Your task to perform on an android device: open app "YouTube Kids" Image 0: 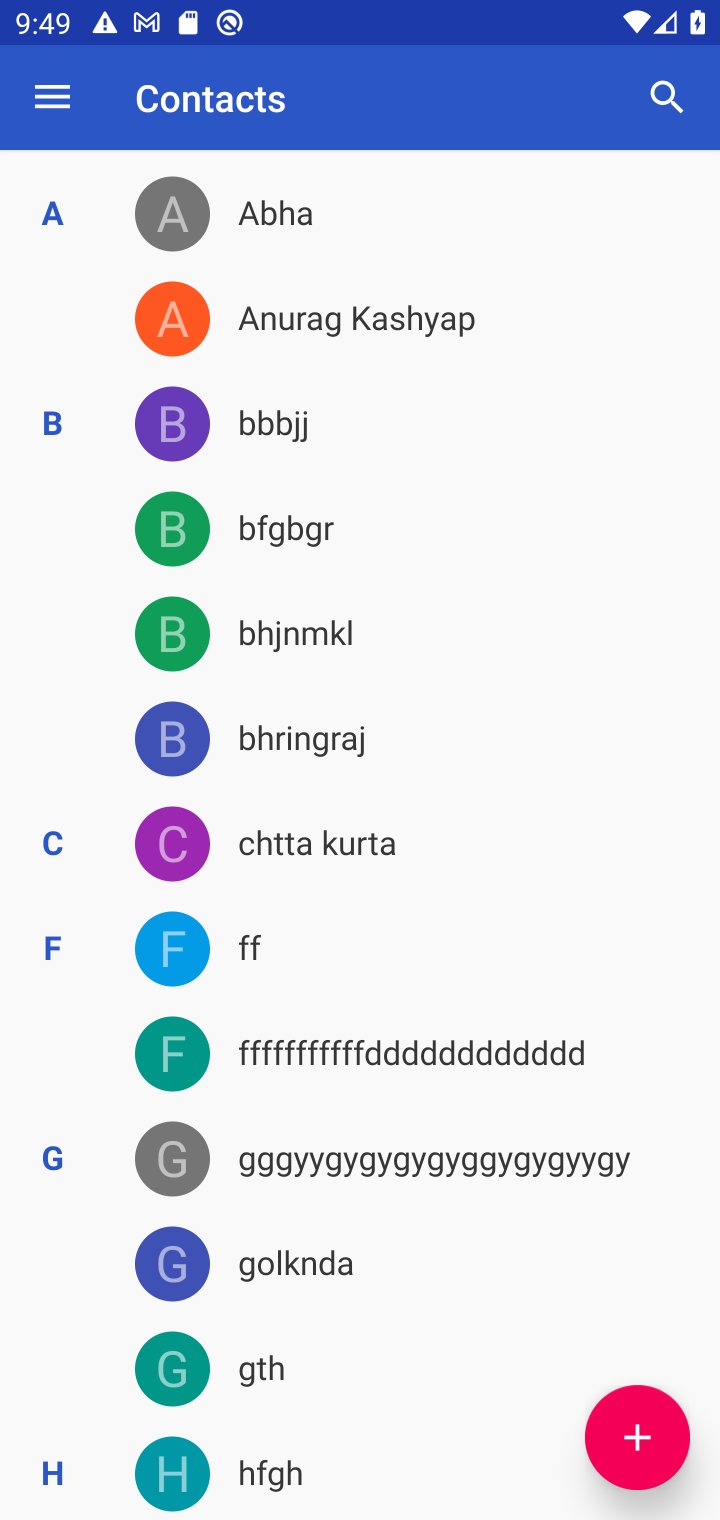
Step 0: press home button
Your task to perform on an android device: open app "YouTube Kids" Image 1: 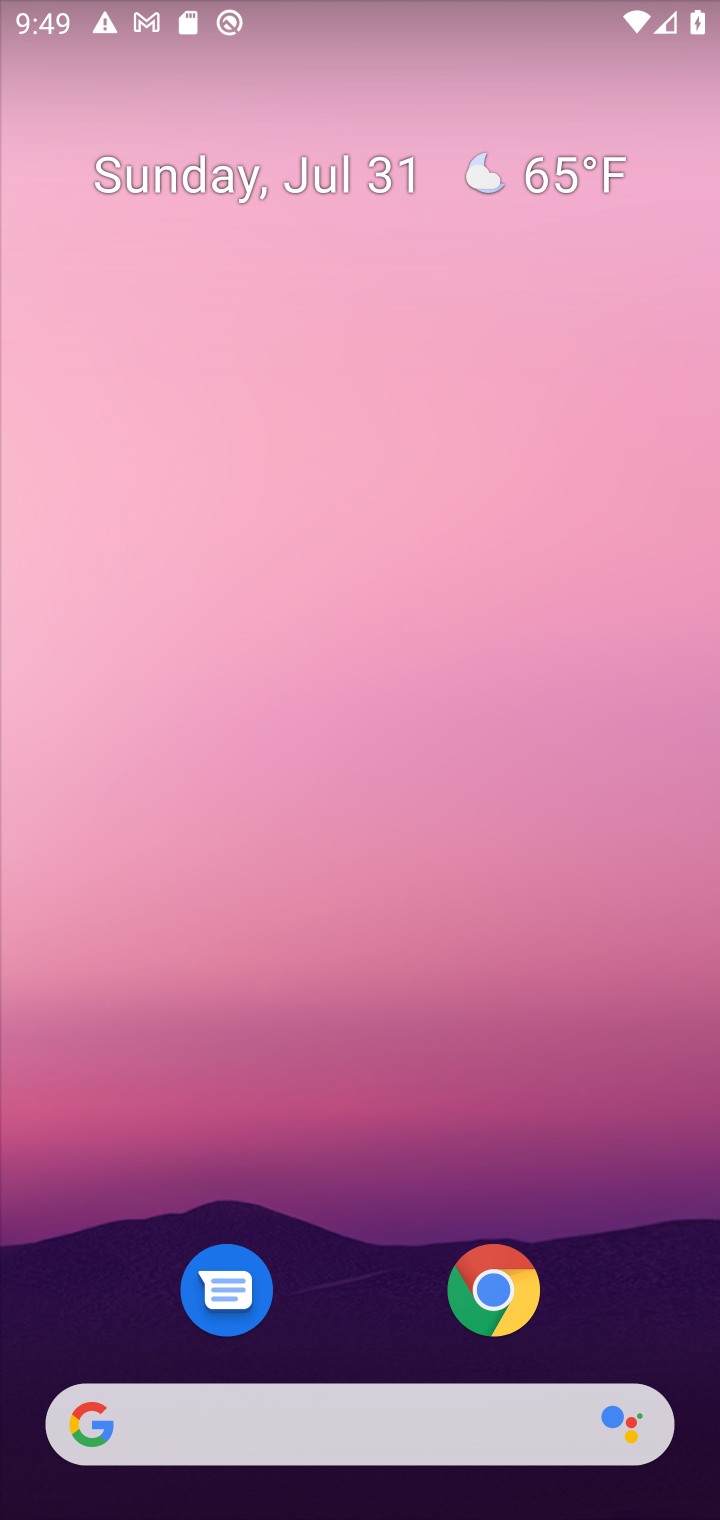
Step 1: drag from (589, 1145) to (580, 134)
Your task to perform on an android device: open app "YouTube Kids" Image 2: 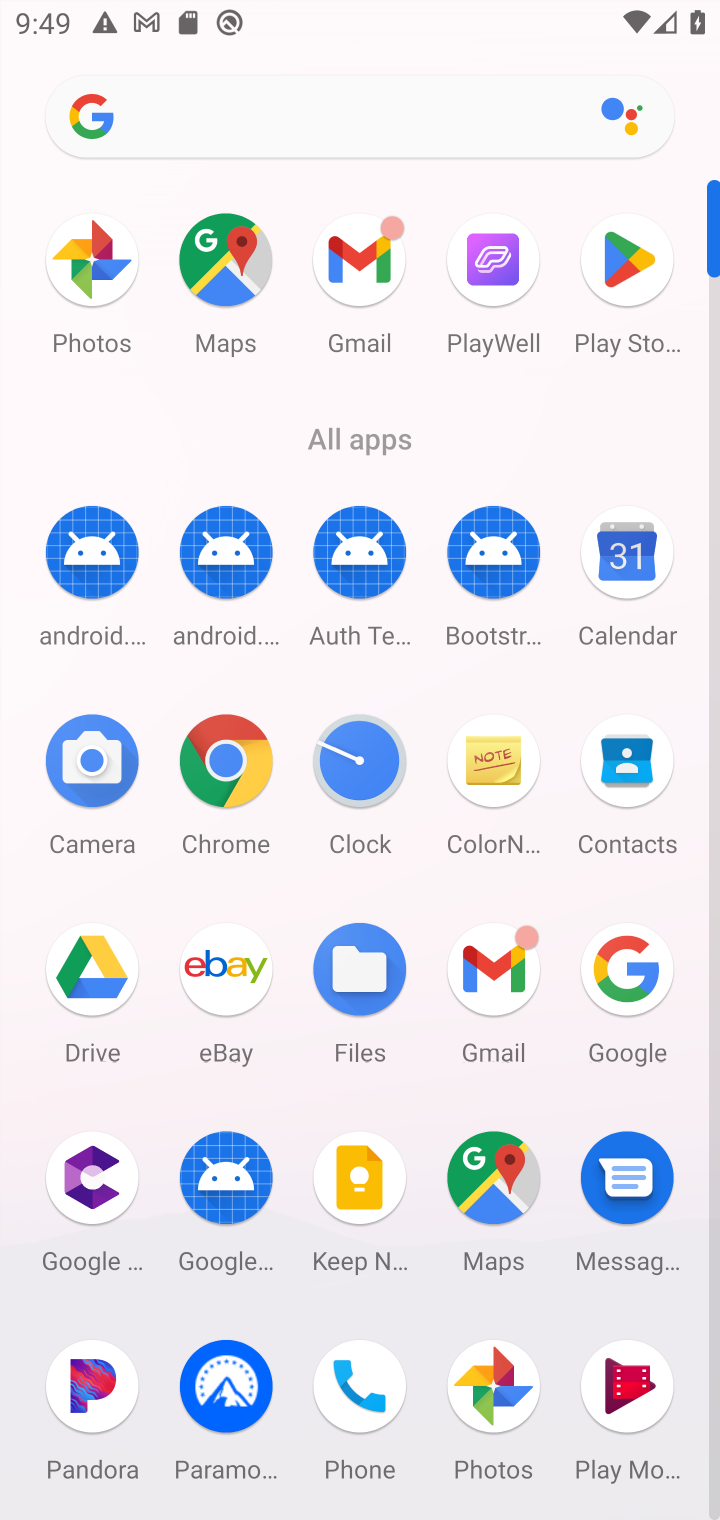
Step 2: click (638, 280)
Your task to perform on an android device: open app "YouTube Kids" Image 3: 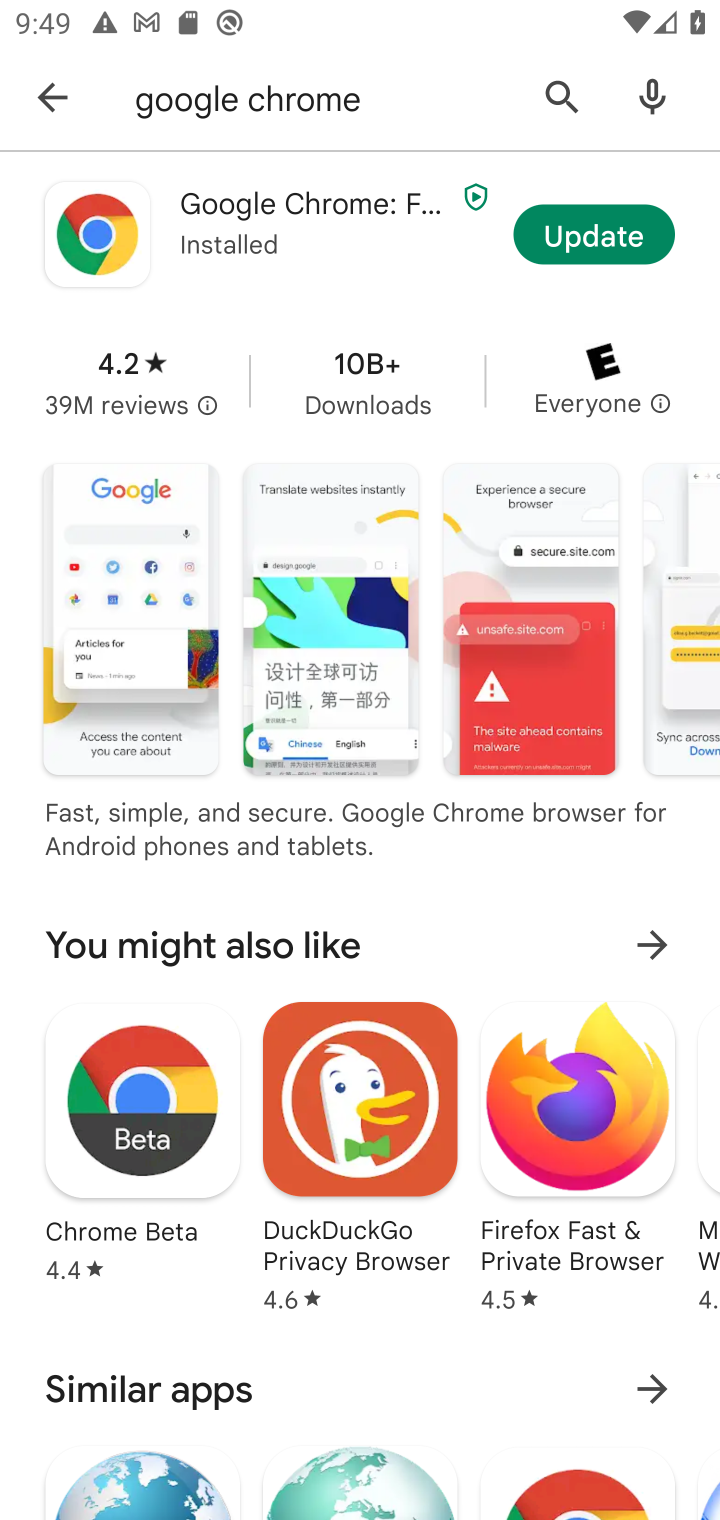
Step 3: click (559, 90)
Your task to perform on an android device: open app "YouTube Kids" Image 4: 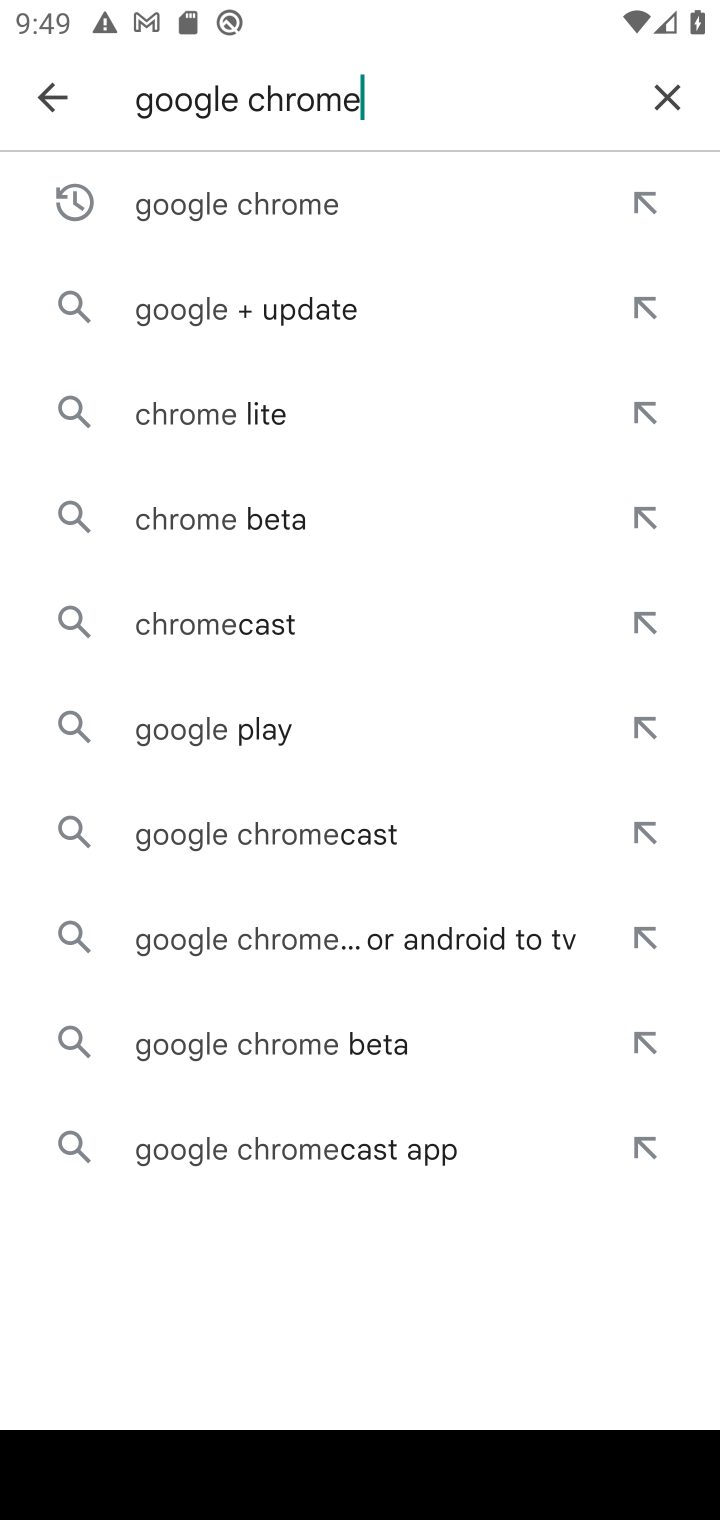
Step 4: click (668, 92)
Your task to perform on an android device: open app "YouTube Kids" Image 5: 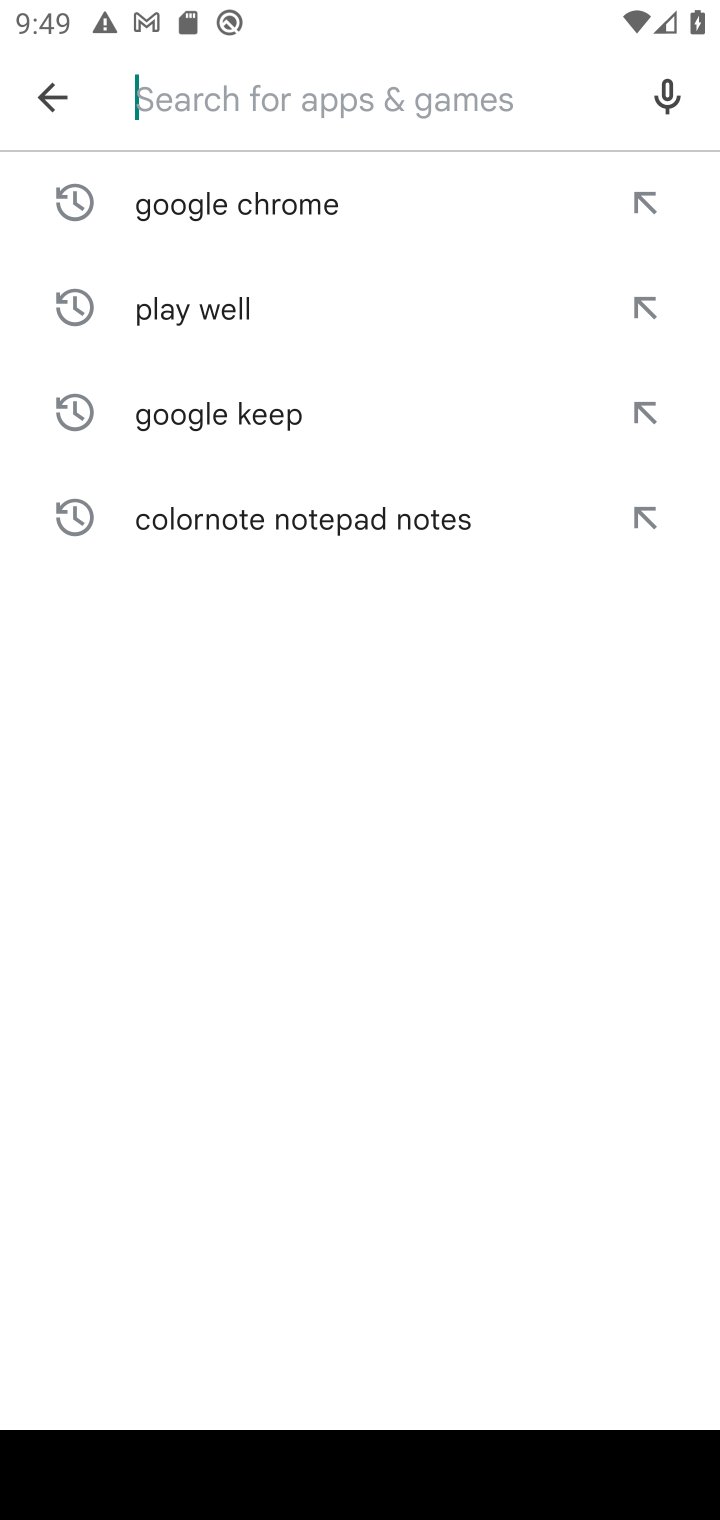
Step 5: type "you tube kids"
Your task to perform on an android device: open app "YouTube Kids" Image 6: 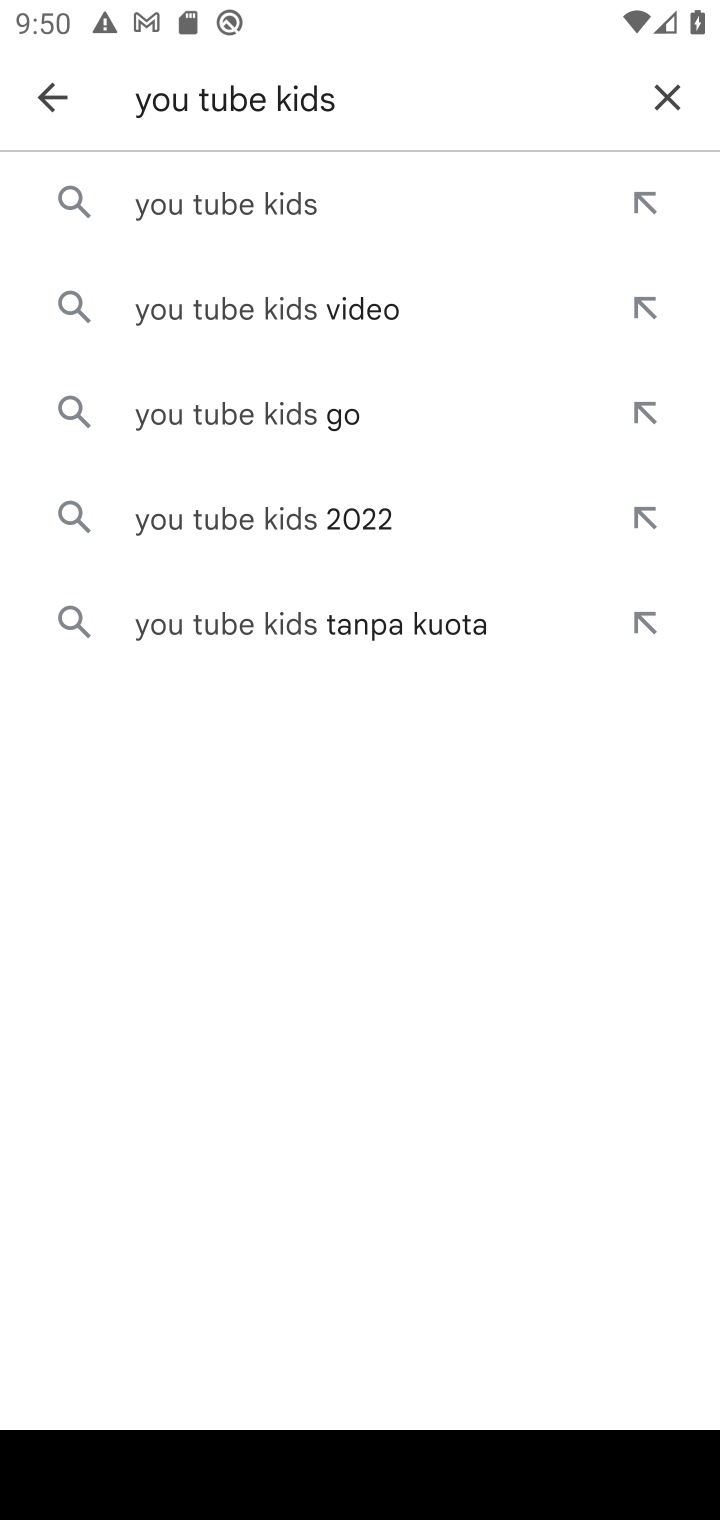
Step 6: click (265, 211)
Your task to perform on an android device: open app "YouTube Kids" Image 7: 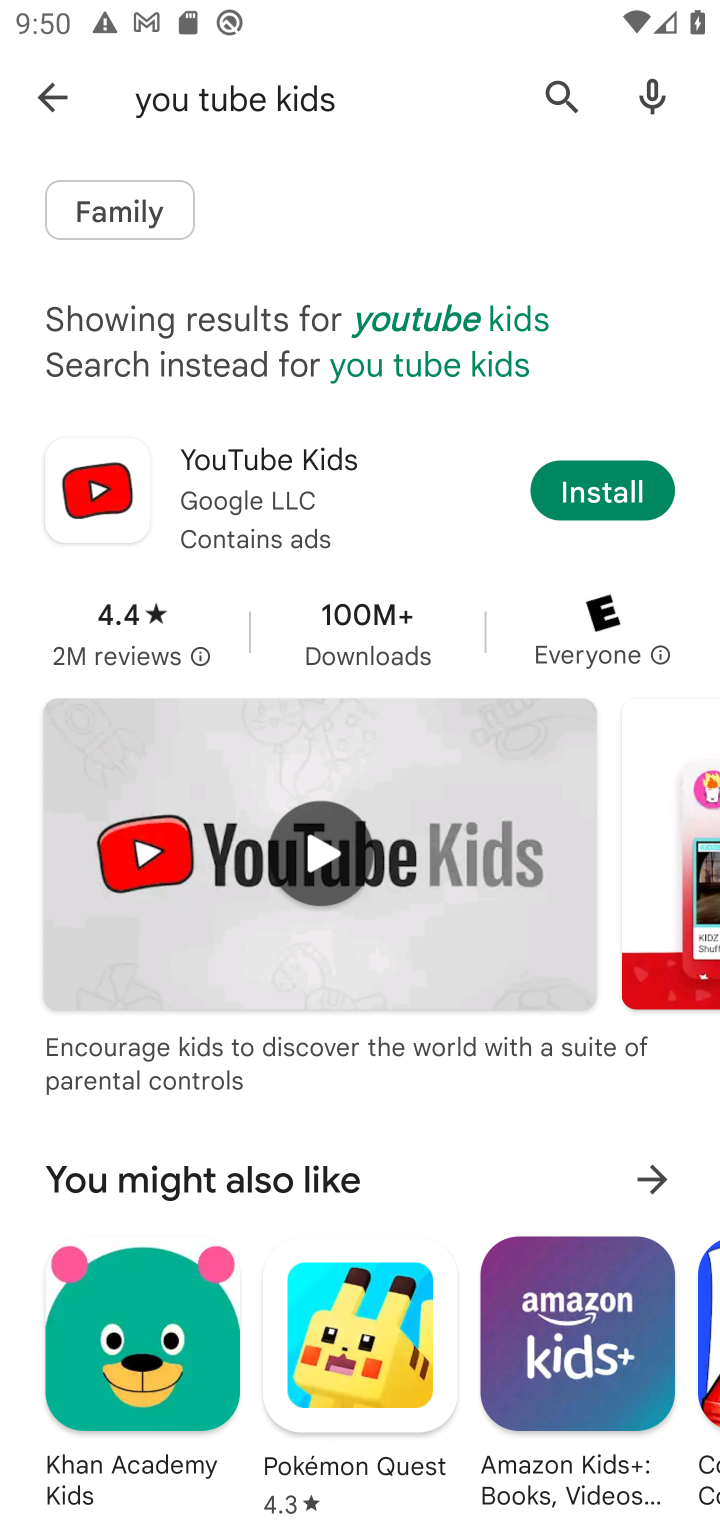
Step 7: task complete